Your task to perform on an android device: Open the calendar app, open the side menu, and click the "Day" option Image 0: 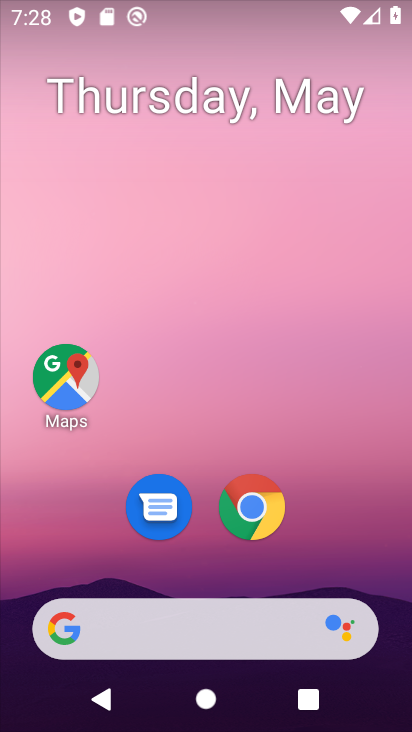
Step 0: drag from (339, 435) to (345, 71)
Your task to perform on an android device: Open the calendar app, open the side menu, and click the "Day" option Image 1: 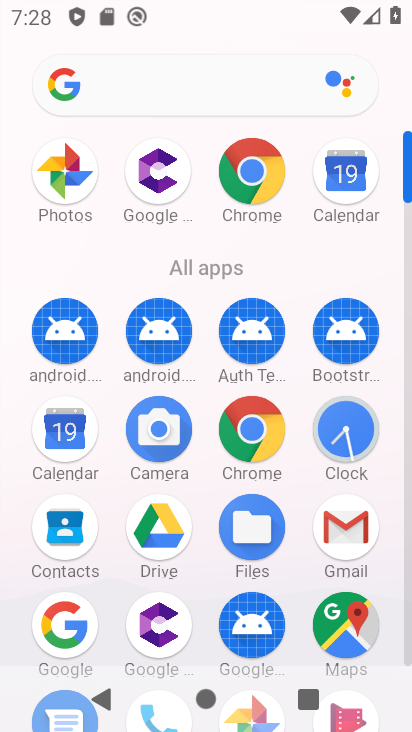
Step 1: click (358, 199)
Your task to perform on an android device: Open the calendar app, open the side menu, and click the "Day" option Image 2: 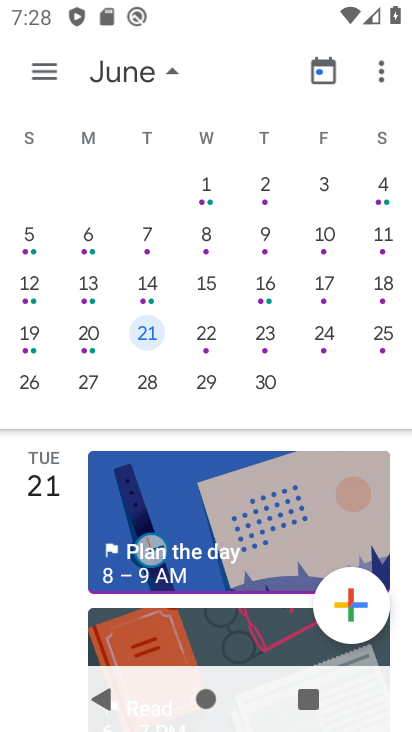
Step 2: click (59, 82)
Your task to perform on an android device: Open the calendar app, open the side menu, and click the "Day" option Image 3: 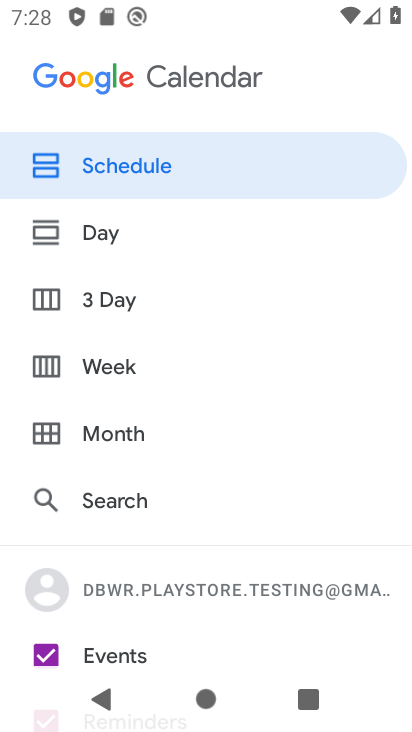
Step 3: click (75, 229)
Your task to perform on an android device: Open the calendar app, open the side menu, and click the "Day" option Image 4: 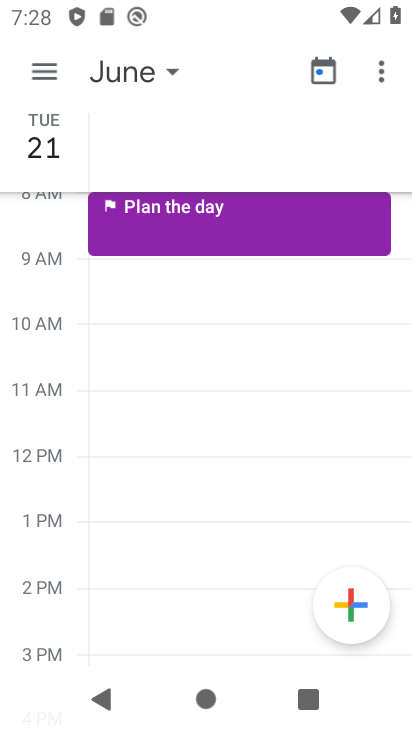
Step 4: task complete